Your task to perform on an android device: Open the phone app and click the voicemail tab. Image 0: 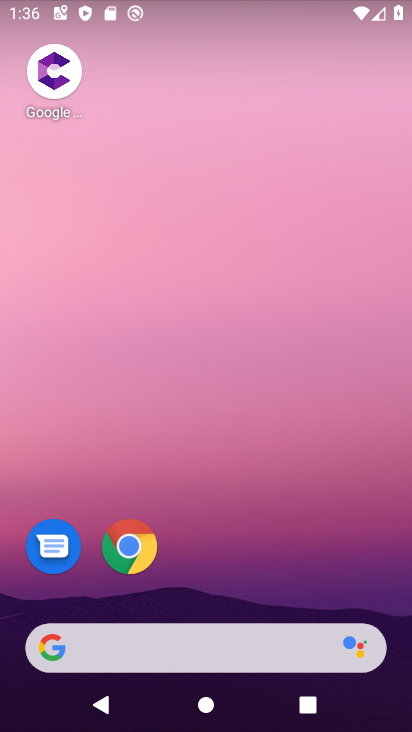
Step 0: drag from (326, 579) to (290, 114)
Your task to perform on an android device: Open the phone app and click the voicemail tab. Image 1: 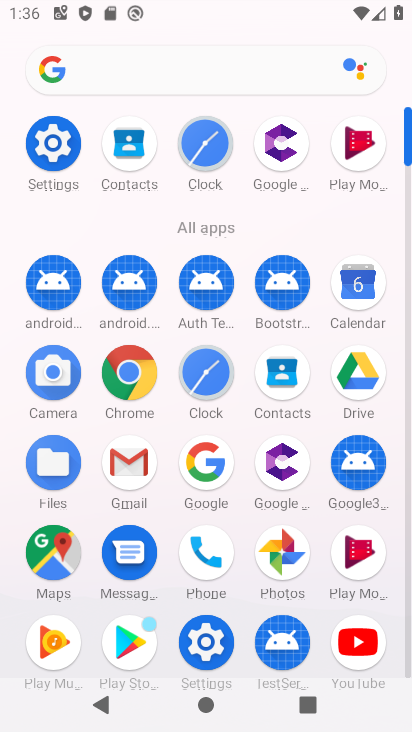
Step 1: click (218, 534)
Your task to perform on an android device: Open the phone app and click the voicemail tab. Image 2: 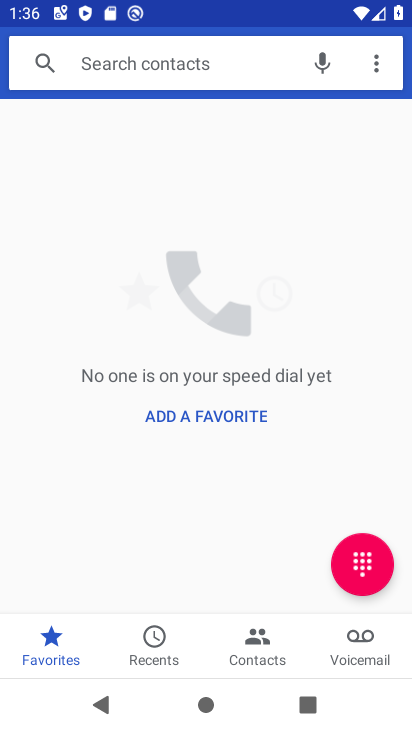
Step 2: click (374, 648)
Your task to perform on an android device: Open the phone app and click the voicemail tab. Image 3: 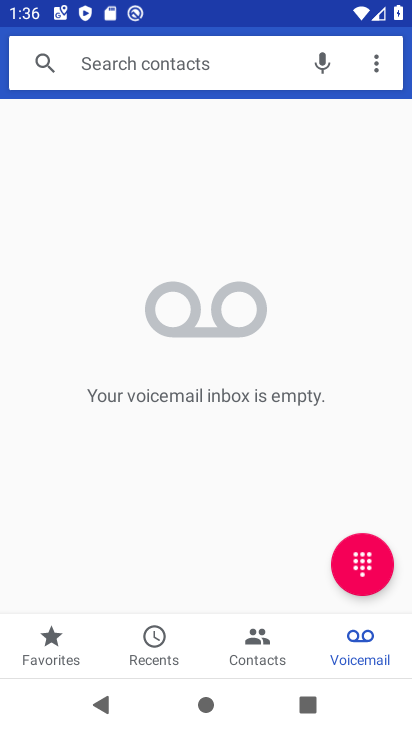
Step 3: task complete